Your task to perform on an android device: turn on priority inbox in the gmail app Image 0: 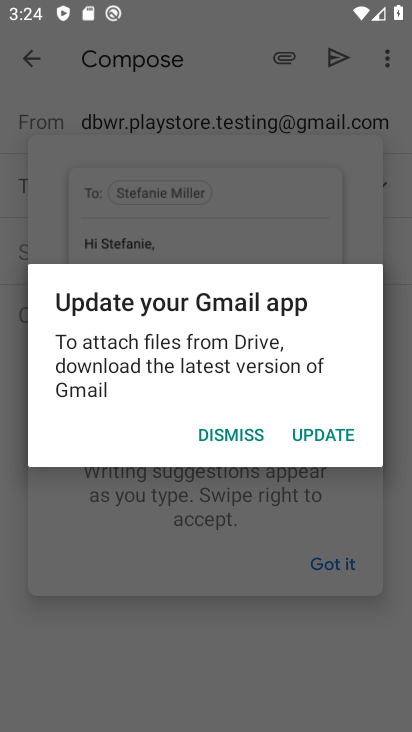
Step 0: click (232, 429)
Your task to perform on an android device: turn on priority inbox in the gmail app Image 1: 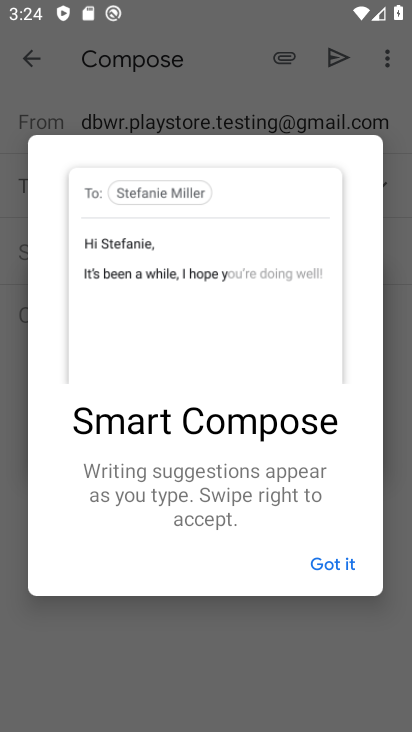
Step 1: click (352, 561)
Your task to perform on an android device: turn on priority inbox in the gmail app Image 2: 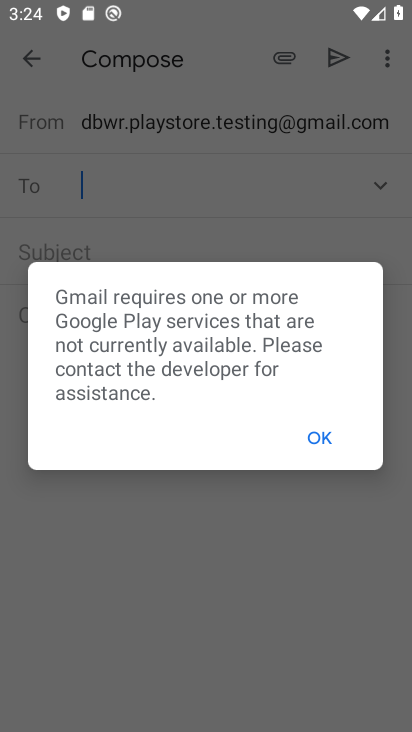
Step 2: click (320, 441)
Your task to perform on an android device: turn on priority inbox in the gmail app Image 3: 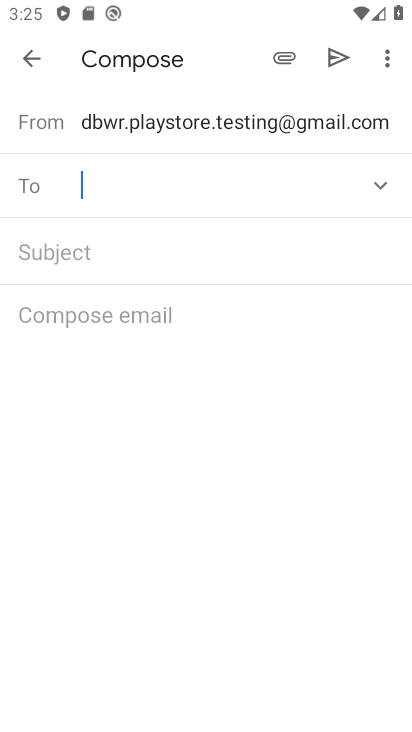
Step 3: click (33, 60)
Your task to perform on an android device: turn on priority inbox in the gmail app Image 4: 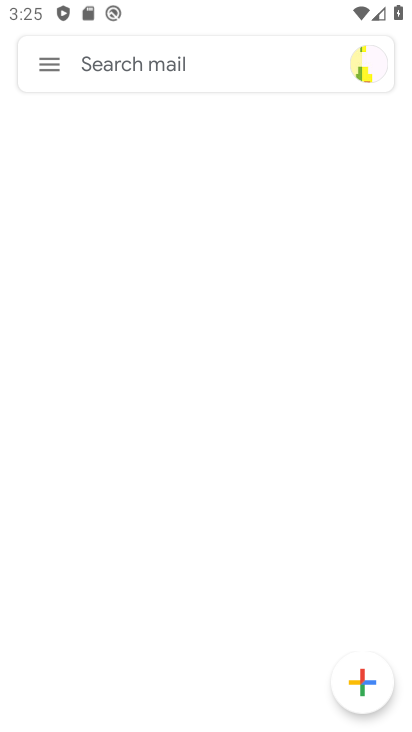
Step 4: click (47, 58)
Your task to perform on an android device: turn on priority inbox in the gmail app Image 5: 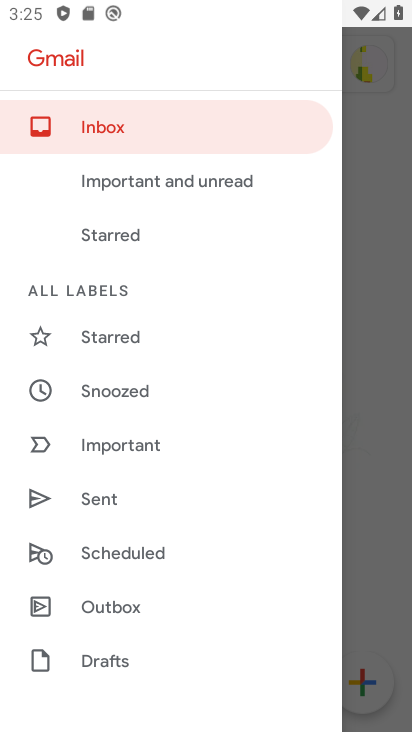
Step 5: drag from (171, 499) to (140, 249)
Your task to perform on an android device: turn on priority inbox in the gmail app Image 6: 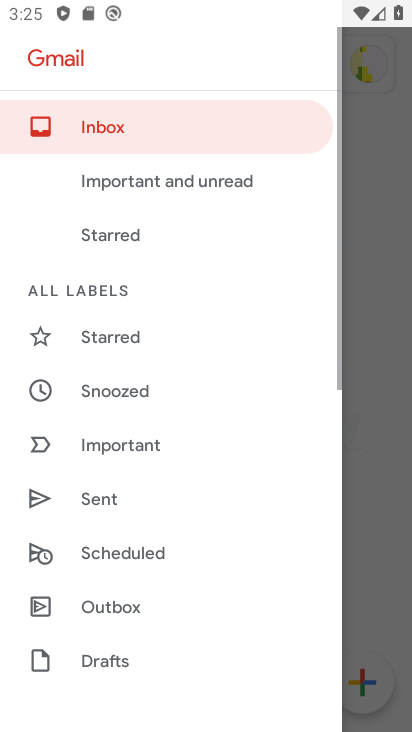
Step 6: drag from (208, 499) to (141, 206)
Your task to perform on an android device: turn on priority inbox in the gmail app Image 7: 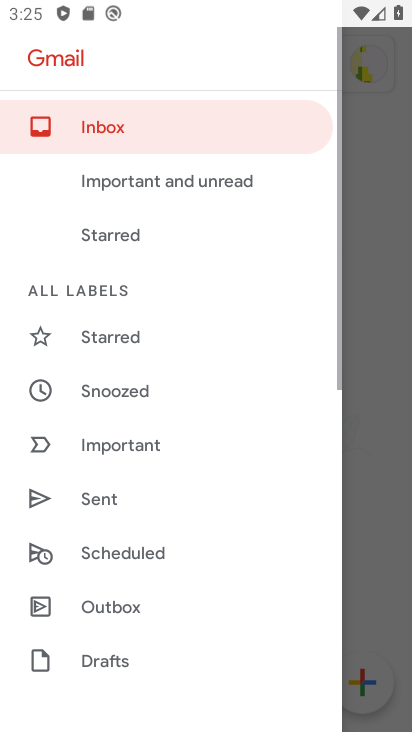
Step 7: drag from (161, 571) to (175, 209)
Your task to perform on an android device: turn on priority inbox in the gmail app Image 8: 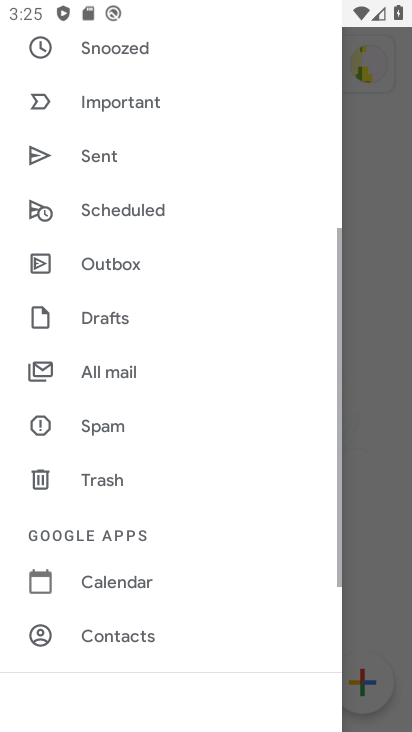
Step 8: drag from (164, 526) to (152, 157)
Your task to perform on an android device: turn on priority inbox in the gmail app Image 9: 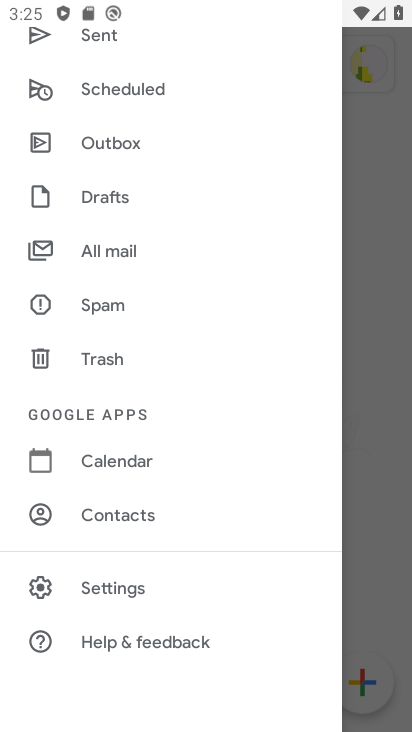
Step 9: drag from (113, 584) to (108, 539)
Your task to perform on an android device: turn on priority inbox in the gmail app Image 10: 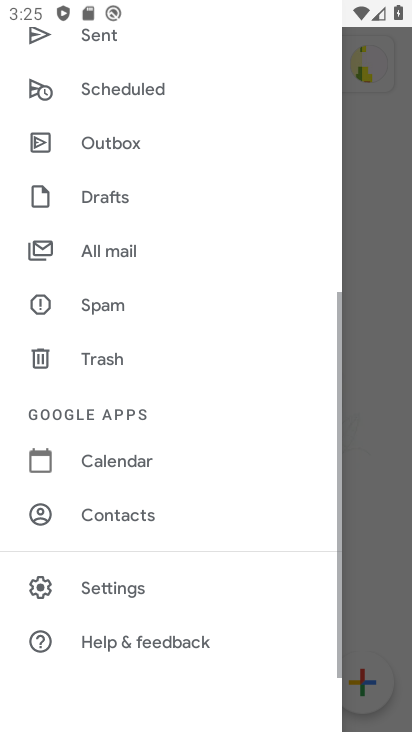
Step 10: click (110, 585)
Your task to perform on an android device: turn on priority inbox in the gmail app Image 11: 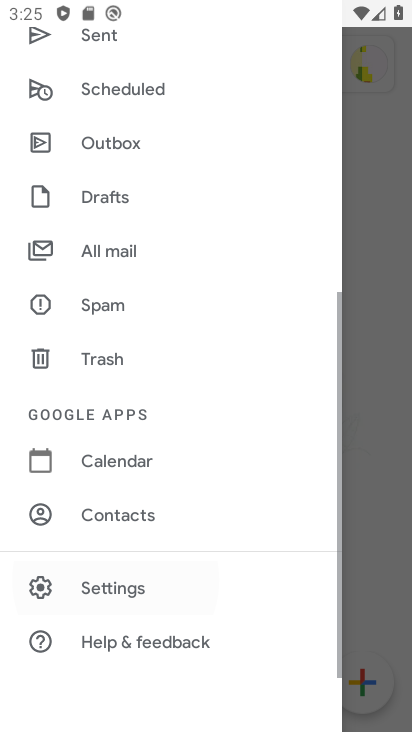
Step 11: click (110, 586)
Your task to perform on an android device: turn on priority inbox in the gmail app Image 12: 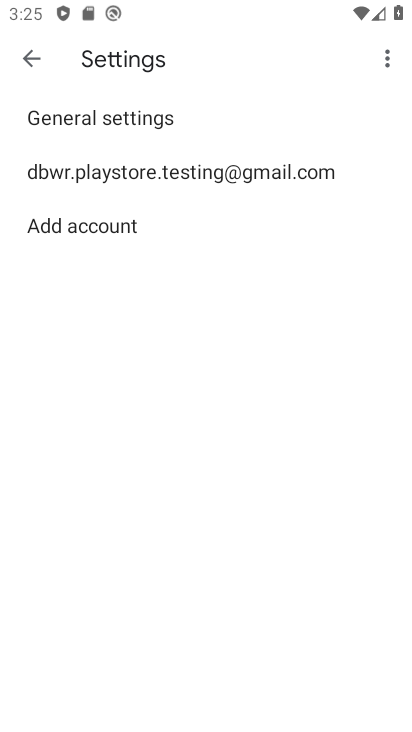
Step 12: click (117, 170)
Your task to perform on an android device: turn on priority inbox in the gmail app Image 13: 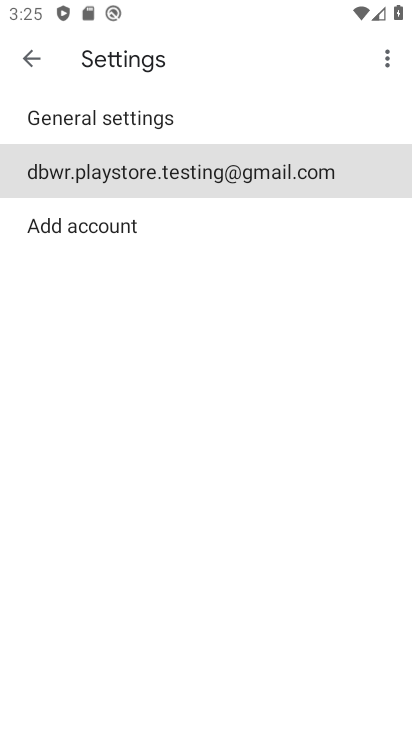
Step 13: click (116, 211)
Your task to perform on an android device: turn on priority inbox in the gmail app Image 14: 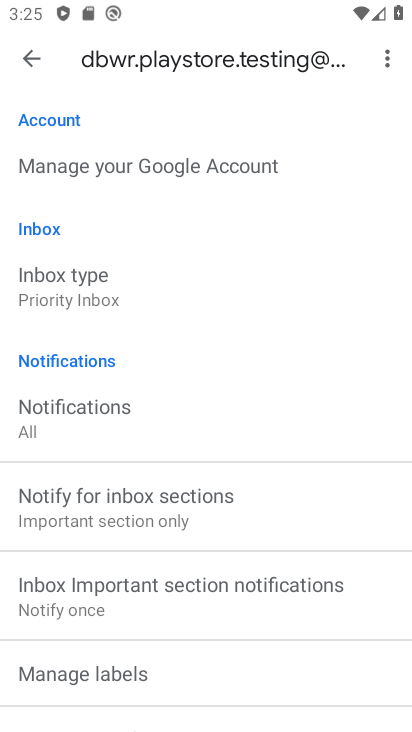
Step 14: click (71, 277)
Your task to perform on an android device: turn on priority inbox in the gmail app Image 15: 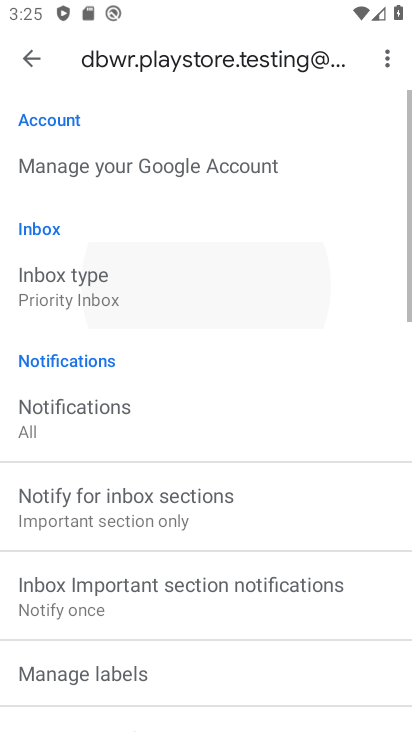
Step 15: click (72, 277)
Your task to perform on an android device: turn on priority inbox in the gmail app Image 16: 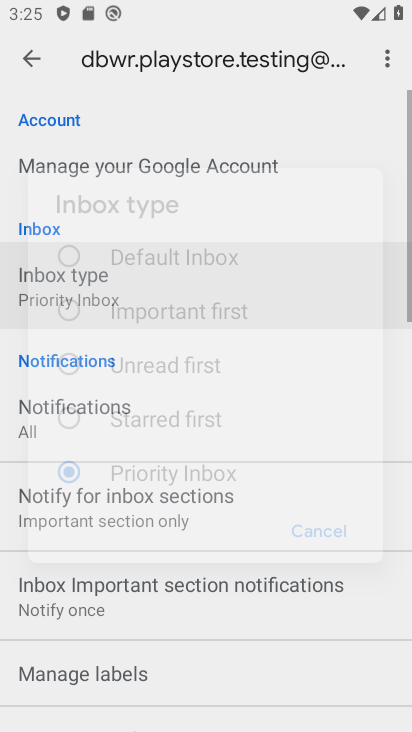
Step 16: click (72, 277)
Your task to perform on an android device: turn on priority inbox in the gmail app Image 17: 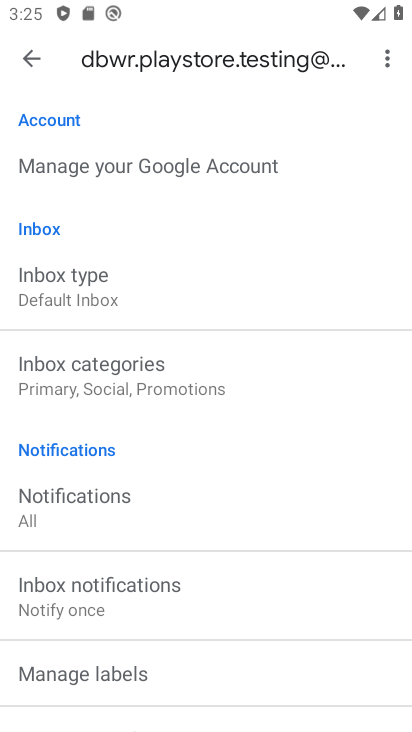
Step 17: click (72, 288)
Your task to perform on an android device: turn on priority inbox in the gmail app Image 18: 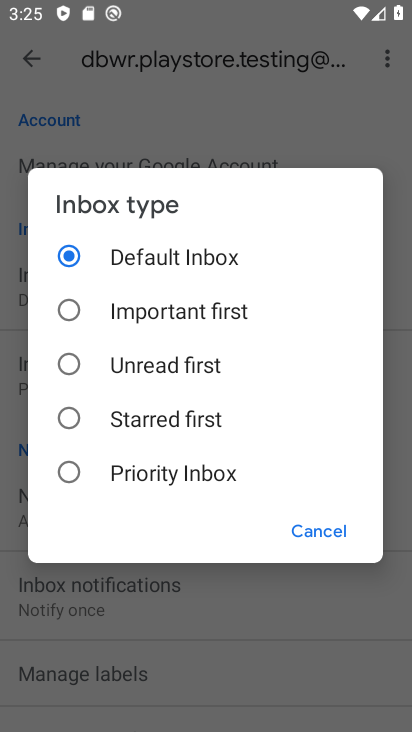
Step 18: click (71, 463)
Your task to perform on an android device: turn on priority inbox in the gmail app Image 19: 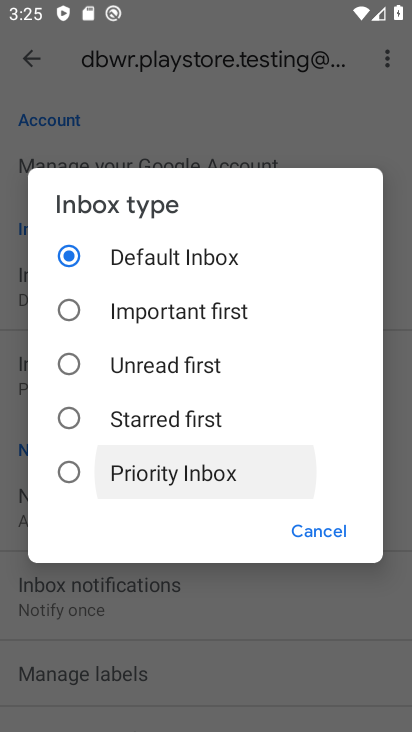
Step 19: click (71, 463)
Your task to perform on an android device: turn on priority inbox in the gmail app Image 20: 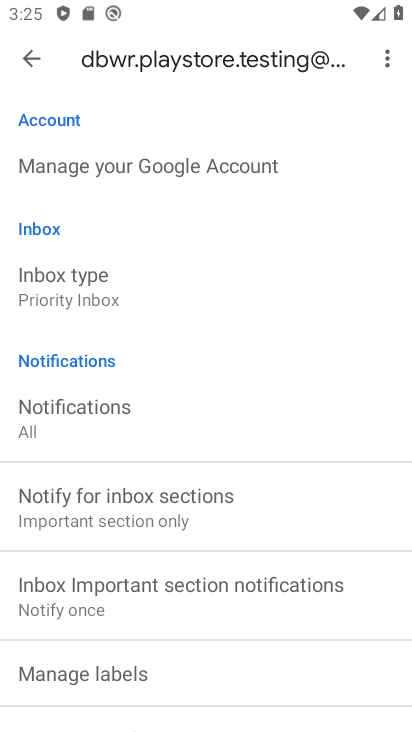
Step 20: task complete